Your task to perform on an android device: Go to Wikipedia Image 0: 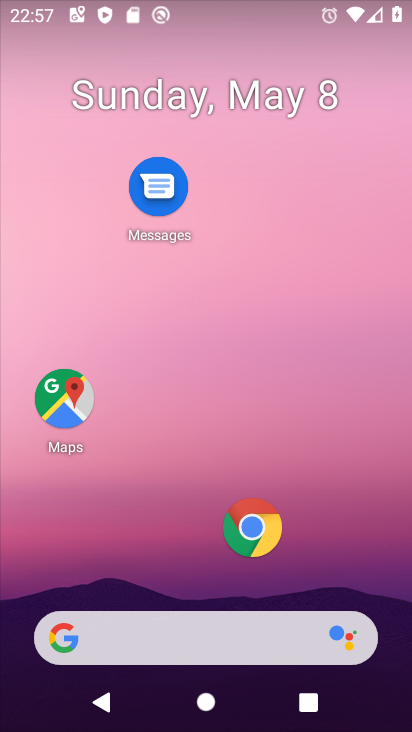
Step 0: click (249, 528)
Your task to perform on an android device: Go to Wikipedia Image 1: 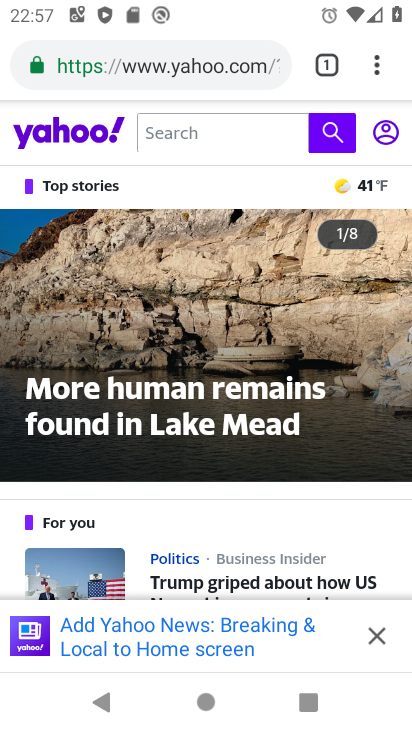
Step 1: press back button
Your task to perform on an android device: Go to Wikipedia Image 2: 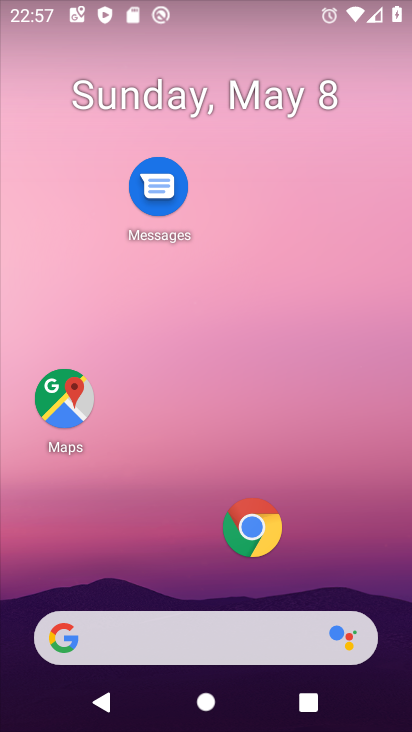
Step 2: click (256, 530)
Your task to perform on an android device: Go to Wikipedia Image 3: 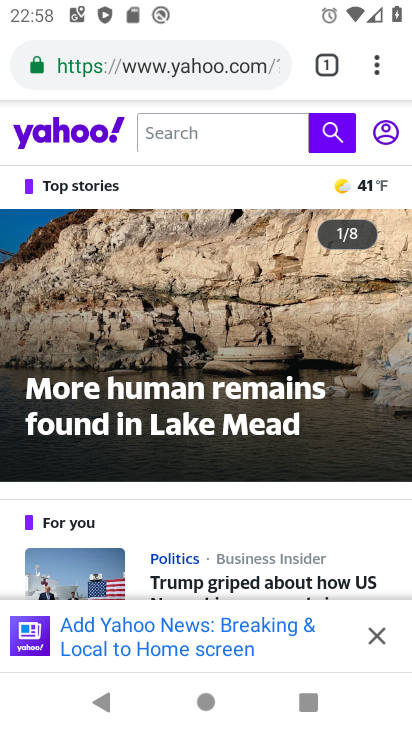
Step 3: click (248, 69)
Your task to perform on an android device: Go to Wikipedia Image 4: 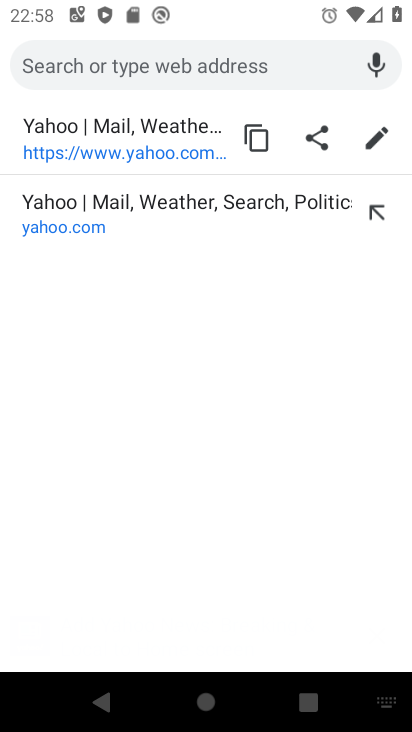
Step 4: type "wikkipedia"
Your task to perform on an android device: Go to Wikipedia Image 5: 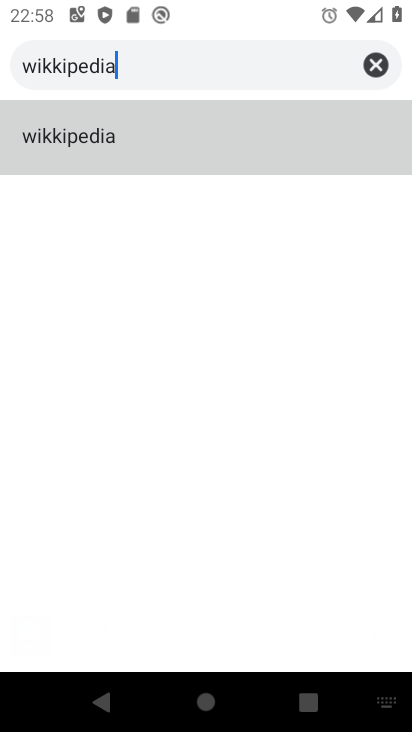
Step 5: click (159, 140)
Your task to perform on an android device: Go to Wikipedia Image 6: 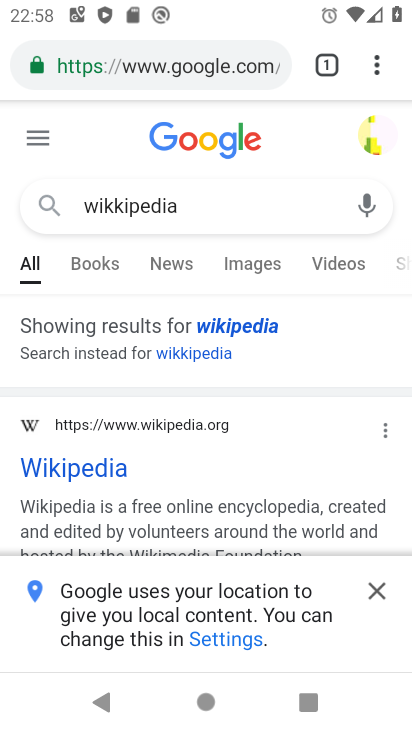
Step 6: click (86, 475)
Your task to perform on an android device: Go to Wikipedia Image 7: 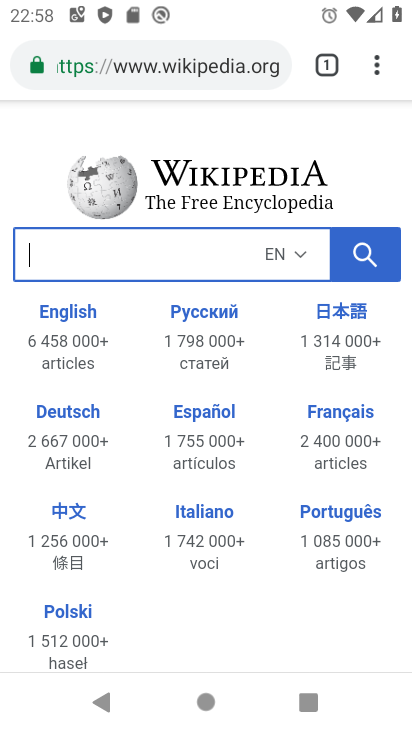
Step 7: task complete